Your task to perform on an android device: Search for razer nari on target, select the first entry, add it to the cart, then select checkout. Image 0: 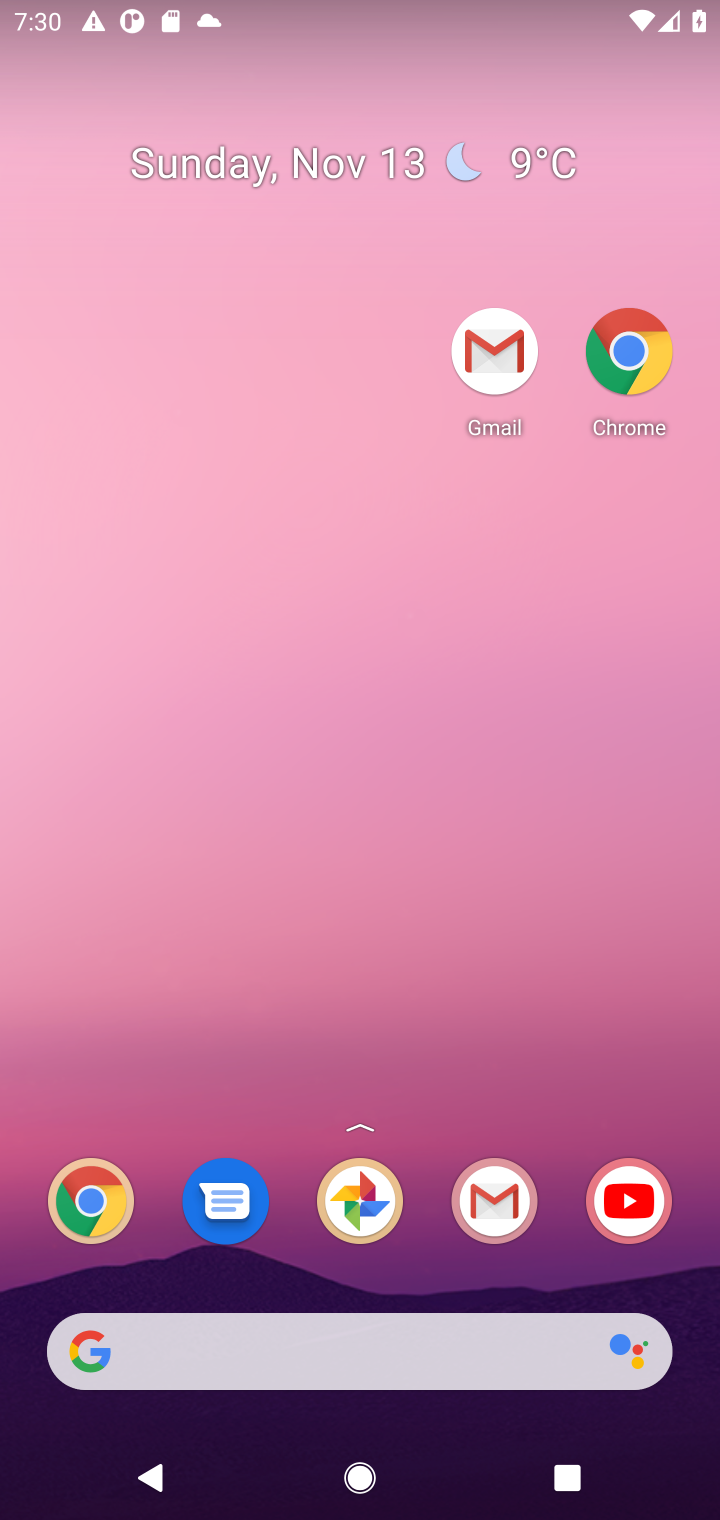
Step 0: drag from (463, 1067) to (544, 111)
Your task to perform on an android device: Search for razer nari on target, select the first entry, add it to the cart, then select checkout. Image 1: 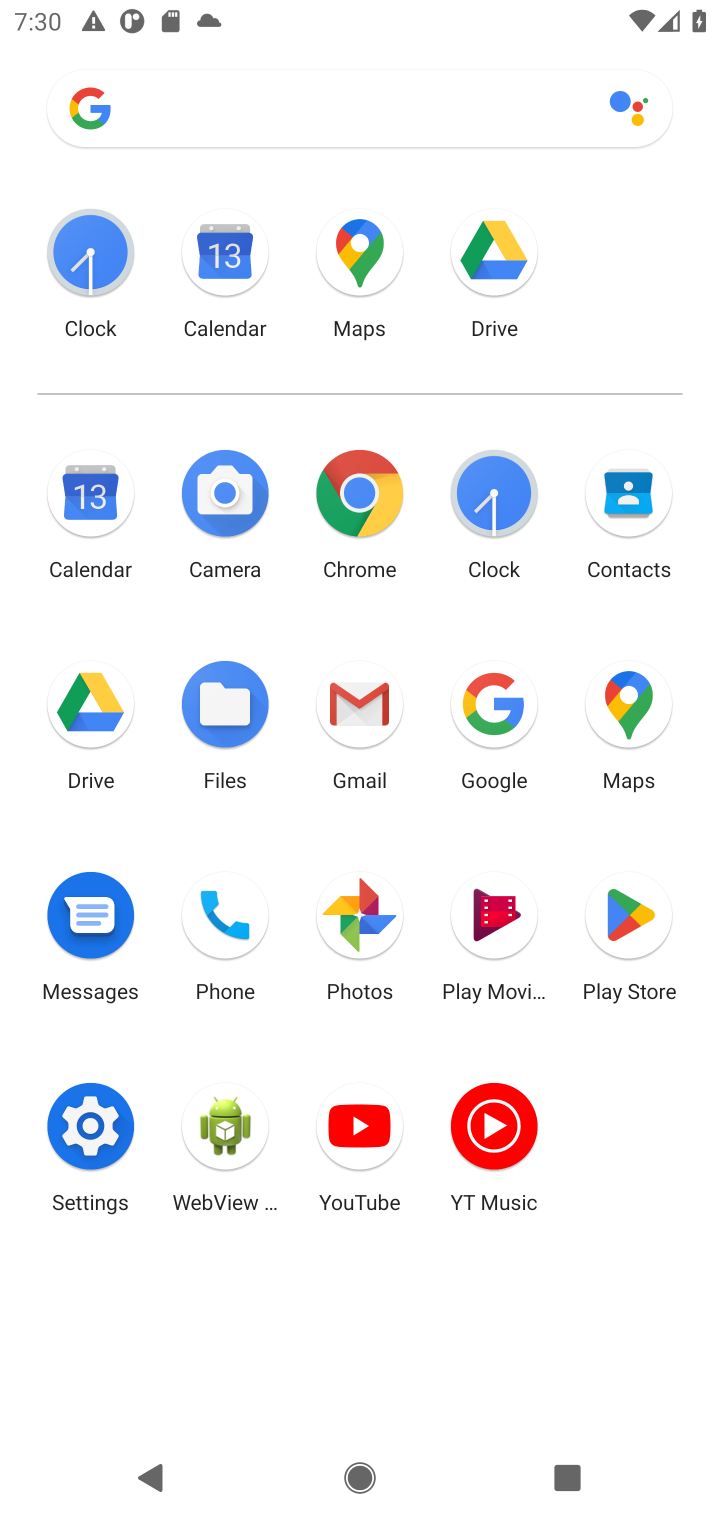
Step 1: click (355, 500)
Your task to perform on an android device: Search for razer nari on target, select the first entry, add it to the cart, then select checkout. Image 2: 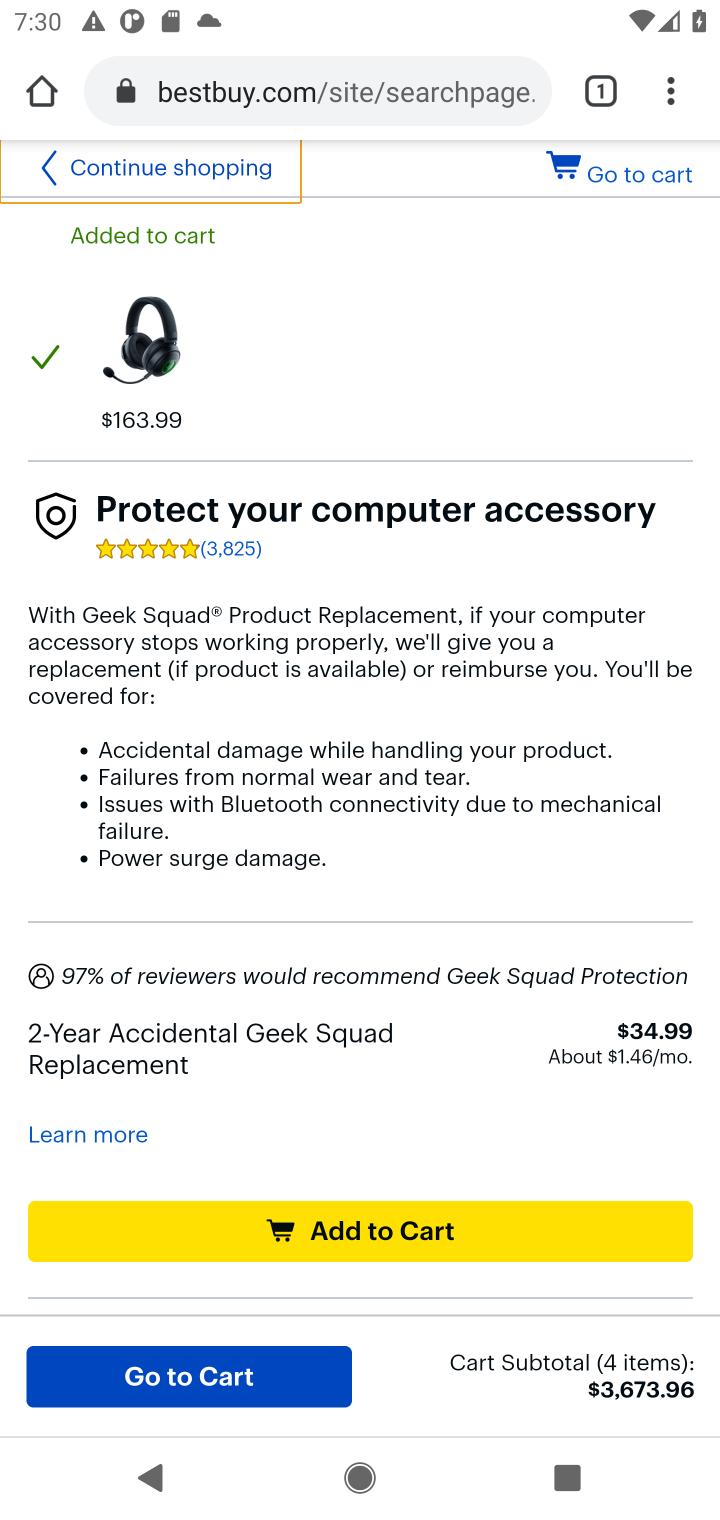
Step 2: click (390, 90)
Your task to perform on an android device: Search for razer nari on target, select the first entry, add it to the cart, then select checkout. Image 3: 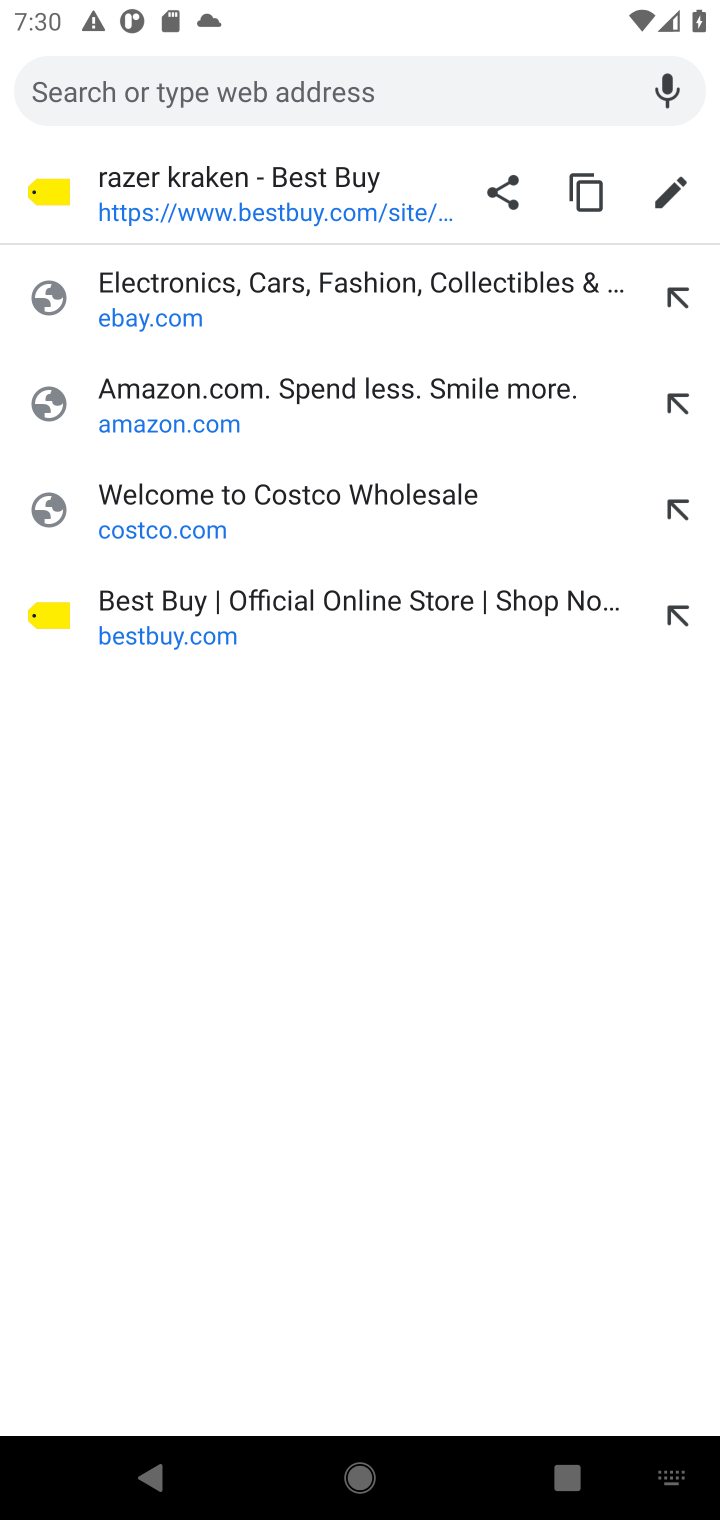
Step 3: type "target.com"
Your task to perform on an android device: Search for razer nari on target, select the first entry, add it to the cart, then select checkout. Image 4: 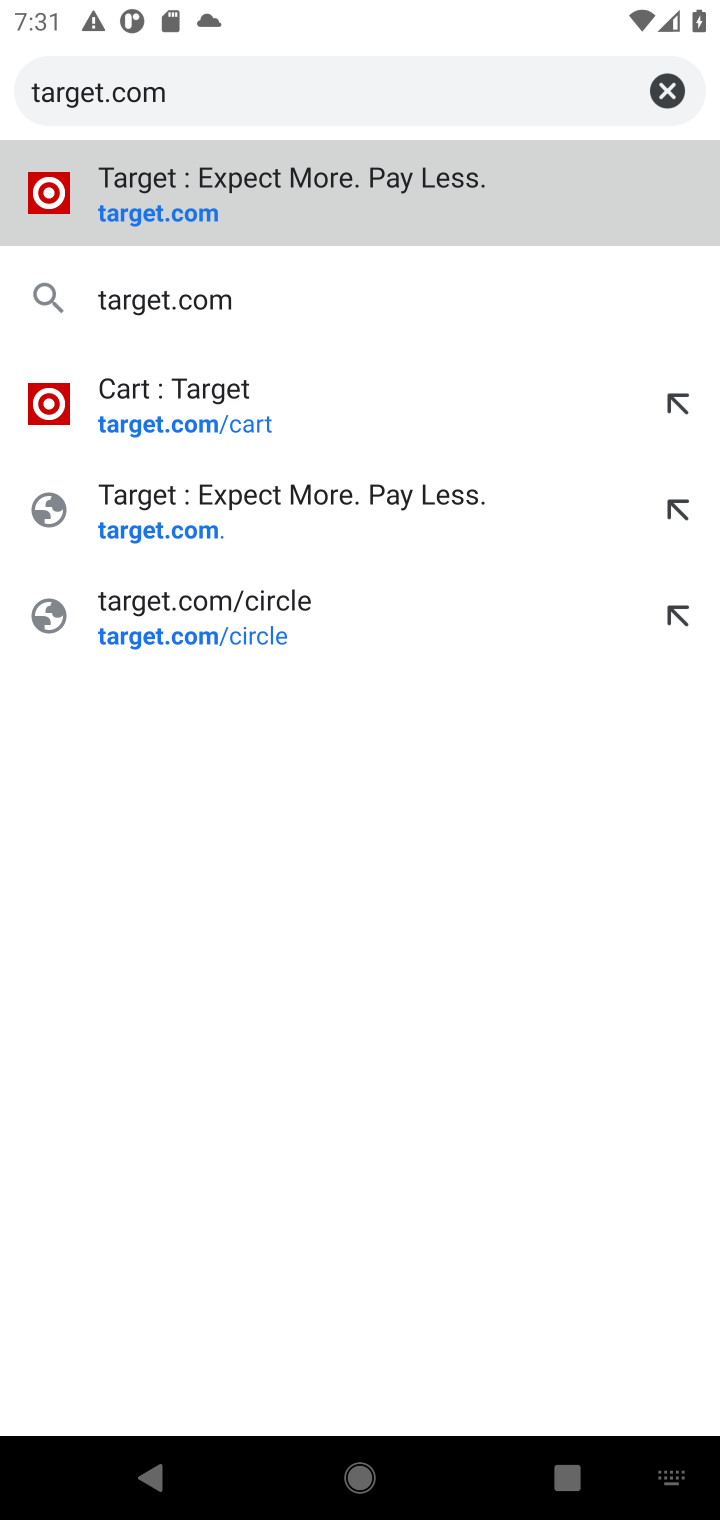
Step 4: press enter
Your task to perform on an android device: Search for razer nari on target, select the first entry, add it to the cart, then select checkout. Image 5: 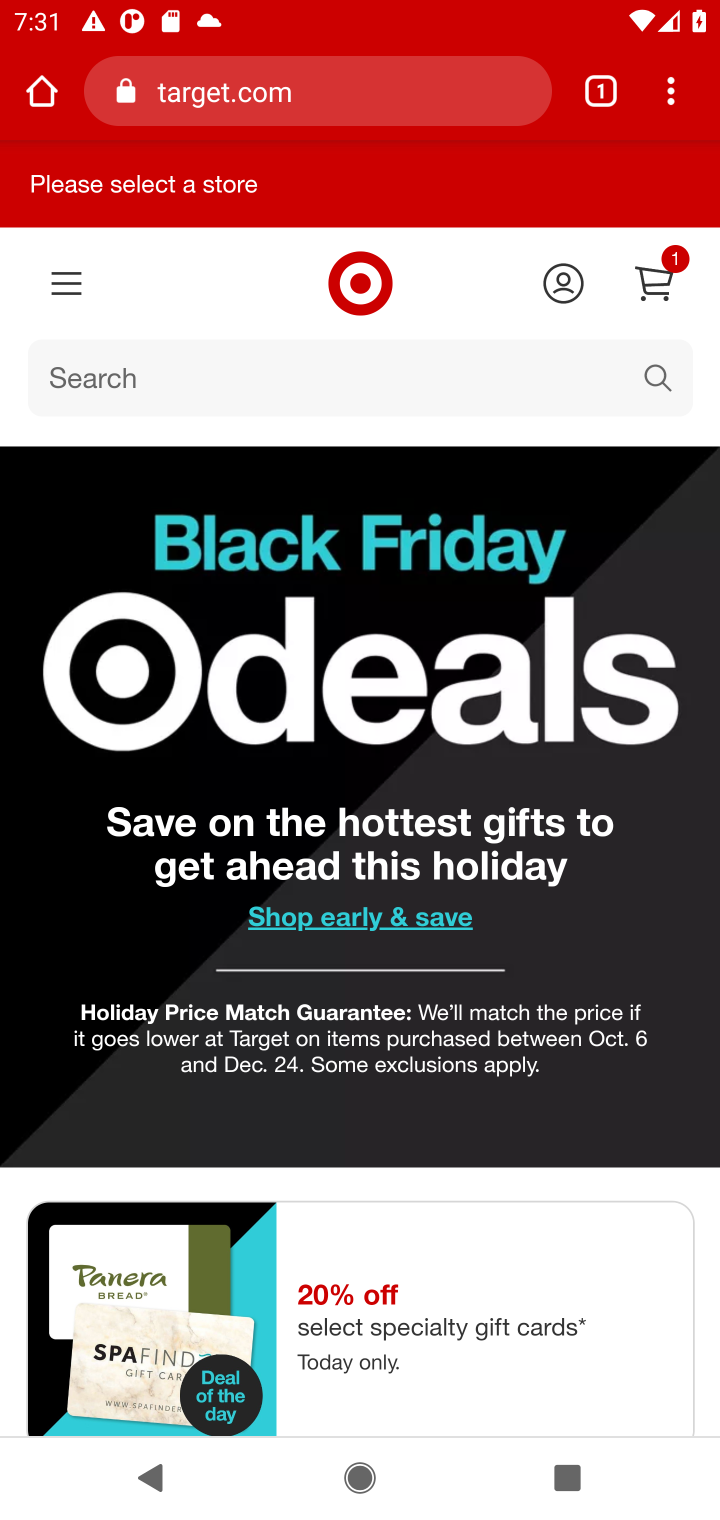
Step 5: click (342, 389)
Your task to perform on an android device: Search for razer nari on target, select the first entry, add it to the cart, then select checkout. Image 6: 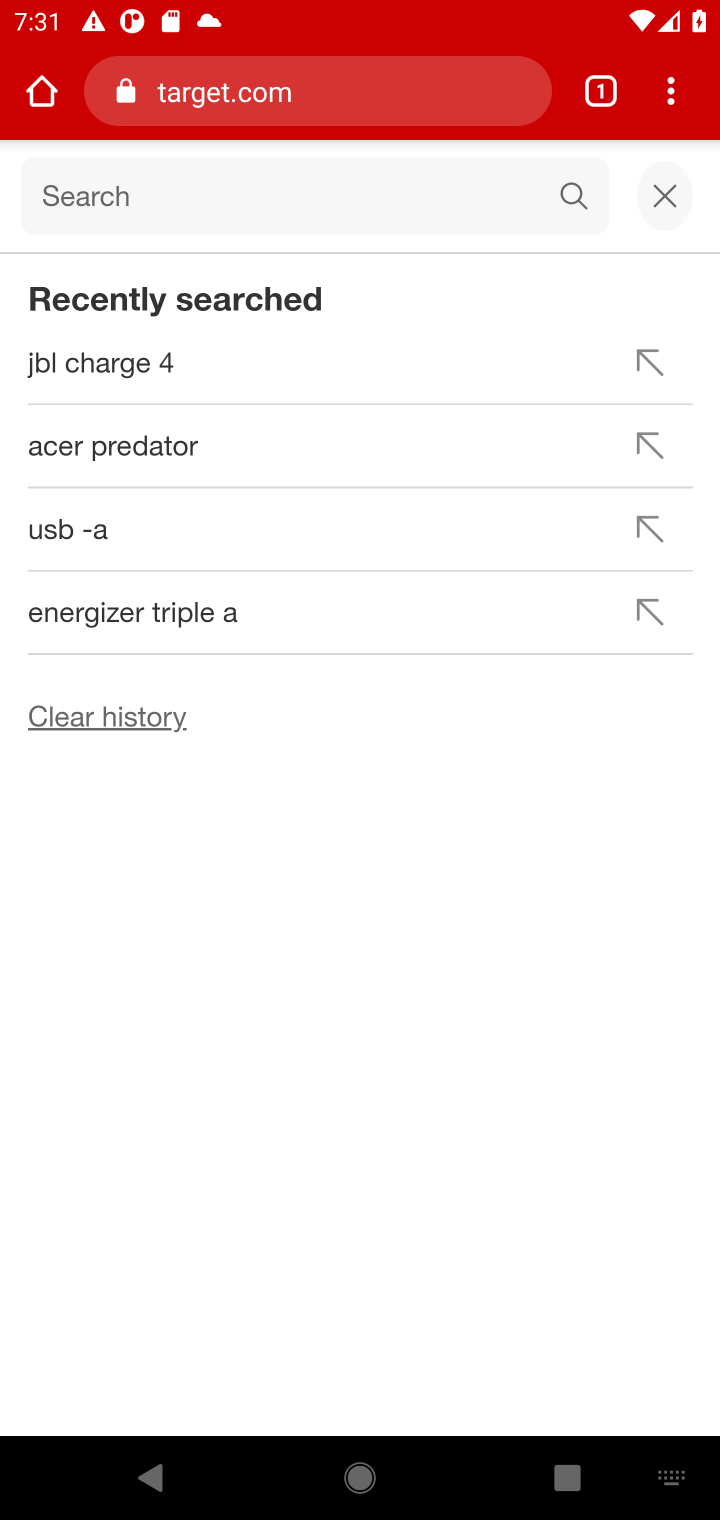
Step 6: type "razer nari"
Your task to perform on an android device: Search for razer nari on target, select the first entry, add it to the cart, then select checkout. Image 7: 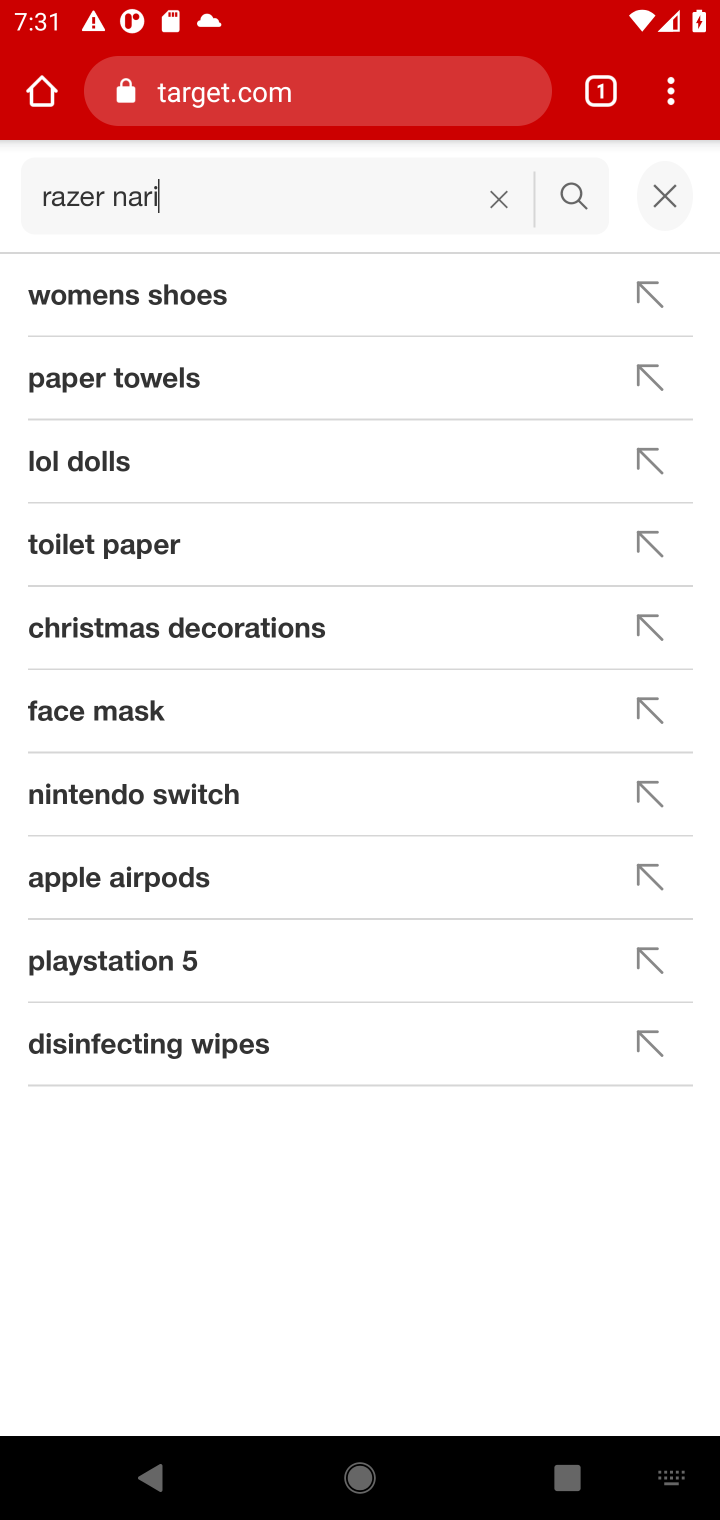
Step 7: press enter
Your task to perform on an android device: Search for razer nari on target, select the first entry, add it to the cart, then select checkout. Image 8: 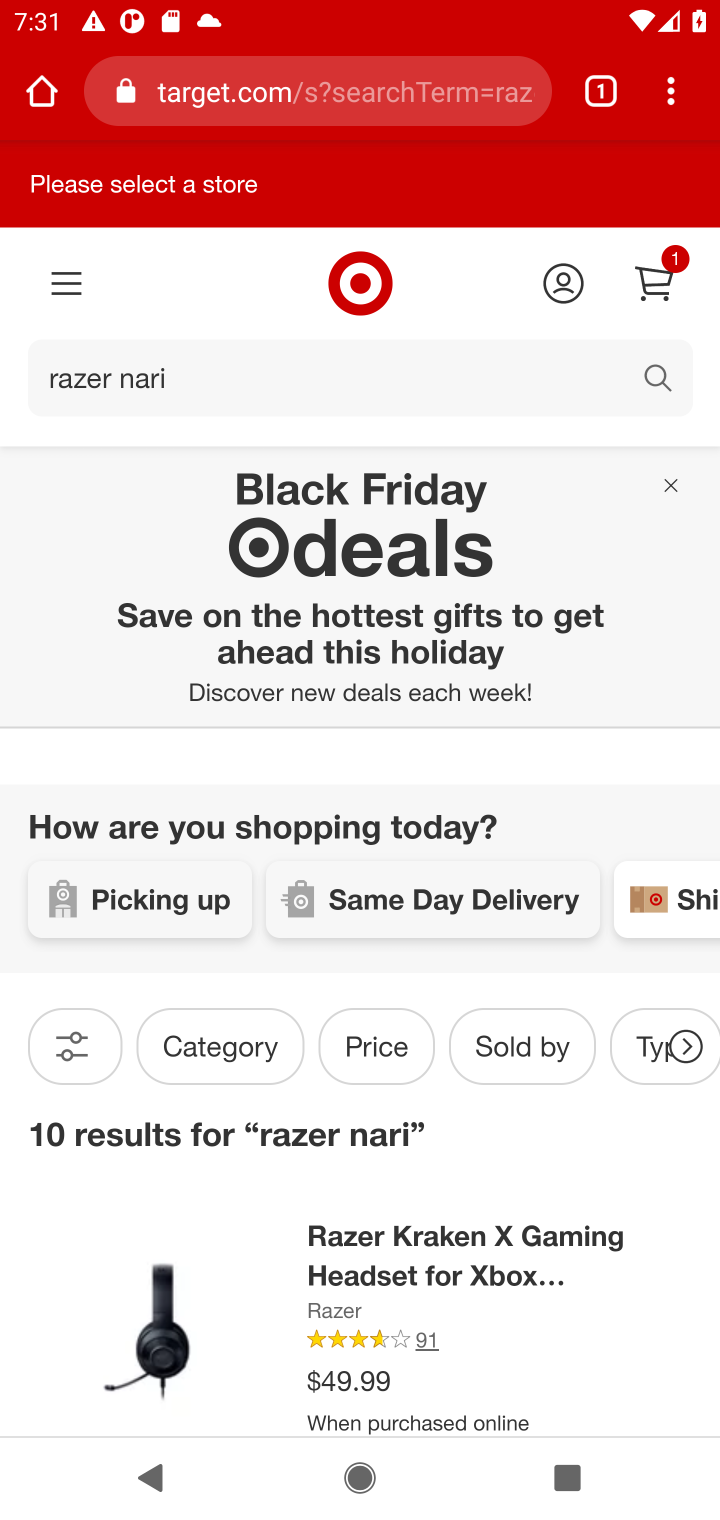
Step 8: task complete